Your task to perform on an android device: Open ESPN.com Image 0: 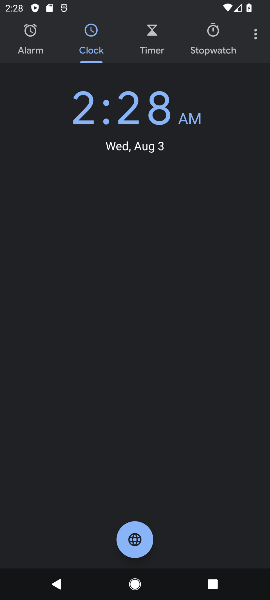
Step 0: press home button
Your task to perform on an android device: Open ESPN.com Image 1: 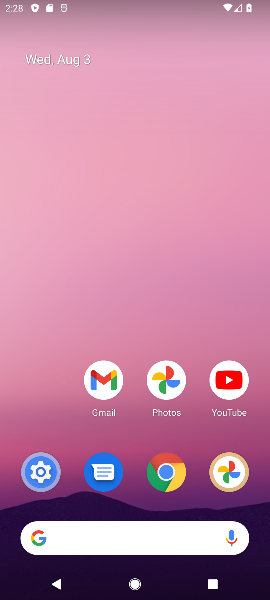
Step 1: drag from (201, 490) to (126, 83)
Your task to perform on an android device: Open ESPN.com Image 2: 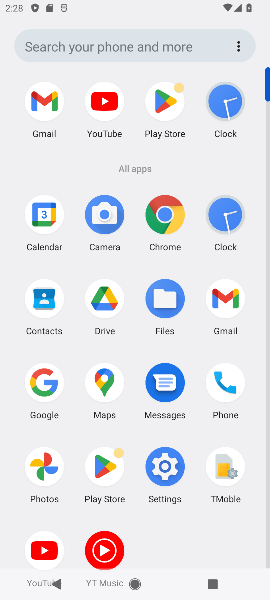
Step 2: click (27, 380)
Your task to perform on an android device: Open ESPN.com Image 3: 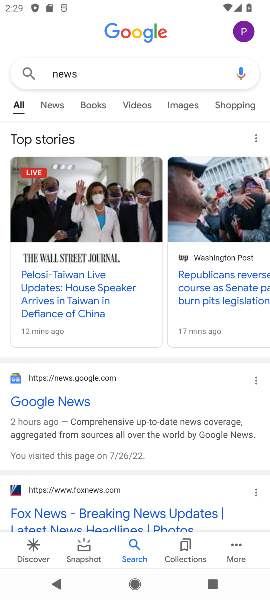
Step 3: press back button
Your task to perform on an android device: Open ESPN.com Image 4: 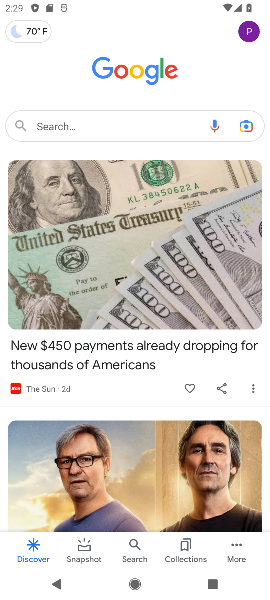
Step 4: click (80, 126)
Your task to perform on an android device: Open ESPN.com Image 5: 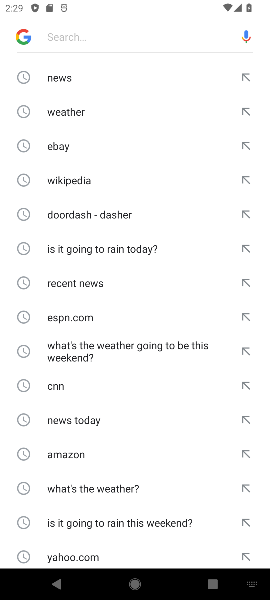
Step 5: click (74, 317)
Your task to perform on an android device: Open ESPN.com Image 6: 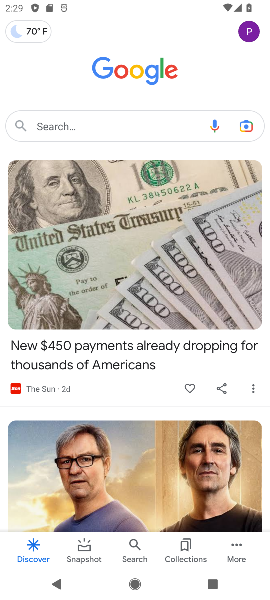
Step 6: click (100, 132)
Your task to perform on an android device: Open ESPN.com Image 7: 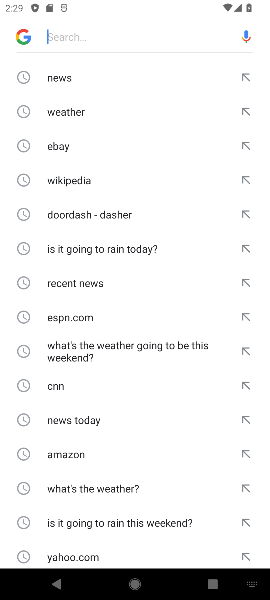
Step 7: click (85, 313)
Your task to perform on an android device: Open ESPN.com Image 8: 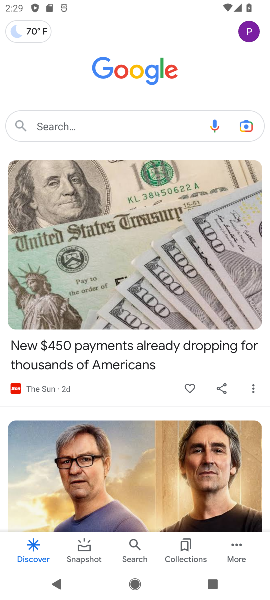
Step 8: click (130, 127)
Your task to perform on an android device: Open ESPN.com Image 9: 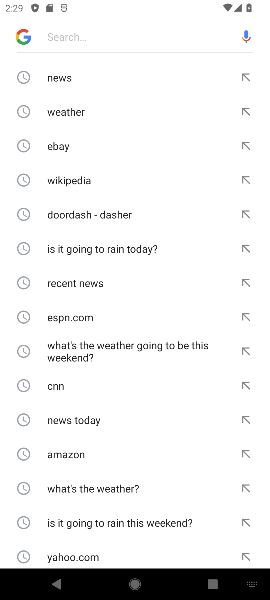
Step 9: click (71, 324)
Your task to perform on an android device: Open ESPN.com Image 10: 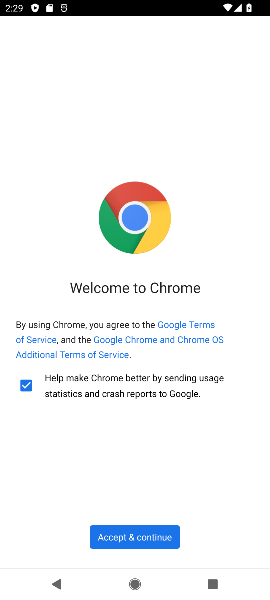
Step 10: click (134, 538)
Your task to perform on an android device: Open ESPN.com Image 11: 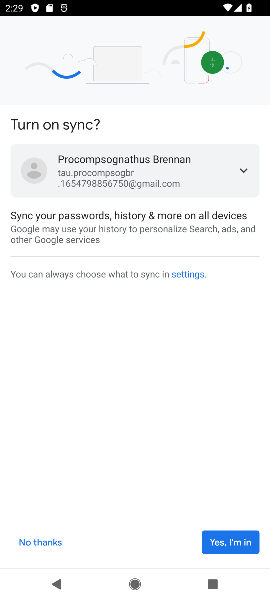
Step 11: click (218, 542)
Your task to perform on an android device: Open ESPN.com Image 12: 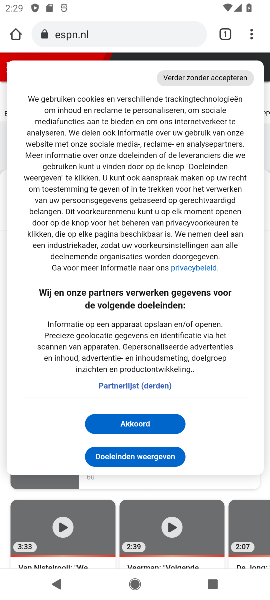
Step 12: task complete